Your task to perform on an android device: toggle improve location accuracy Image 0: 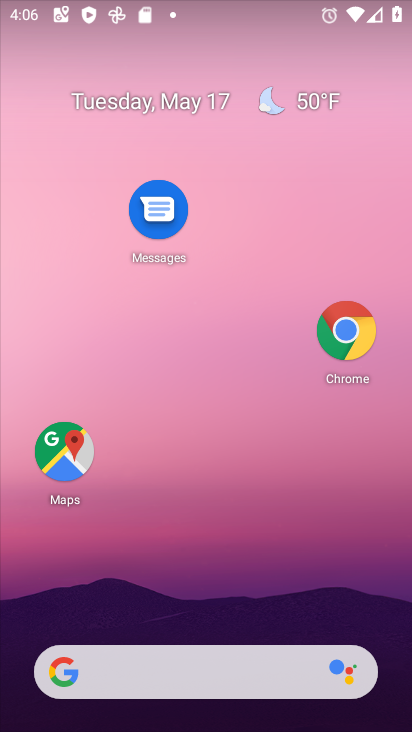
Step 0: drag from (347, 585) to (244, 119)
Your task to perform on an android device: toggle improve location accuracy Image 1: 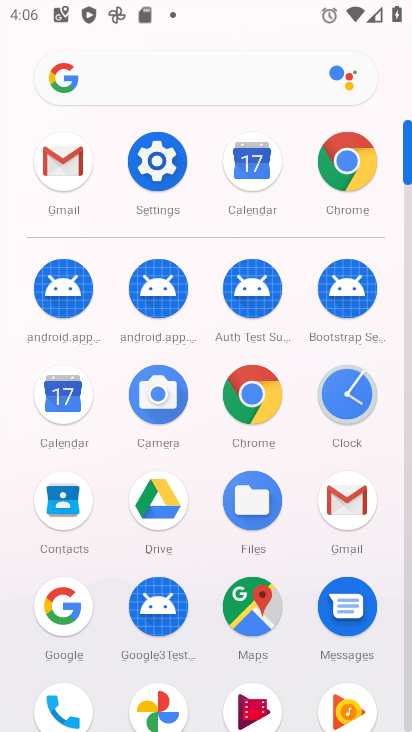
Step 1: click (179, 179)
Your task to perform on an android device: toggle improve location accuracy Image 2: 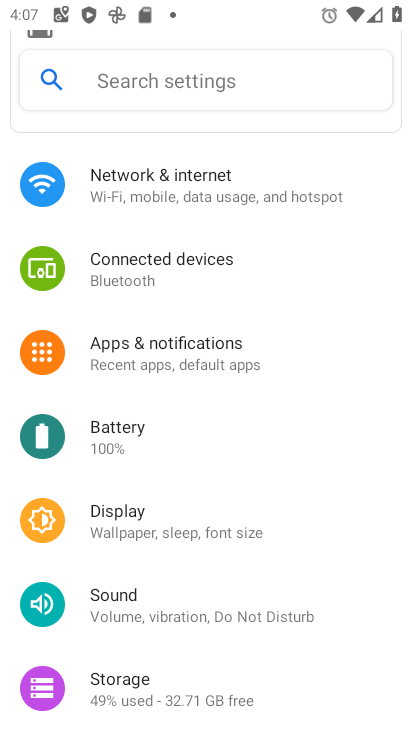
Step 2: drag from (194, 594) to (129, 318)
Your task to perform on an android device: toggle improve location accuracy Image 3: 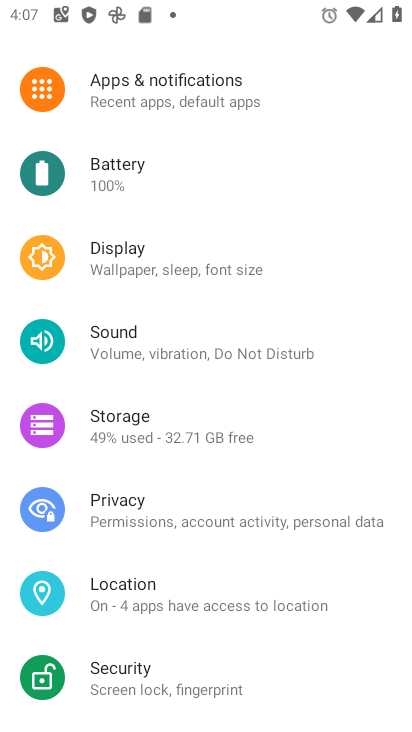
Step 3: click (149, 592)
Your task to perform on an android device: toggle improve location accuracy Image 4: 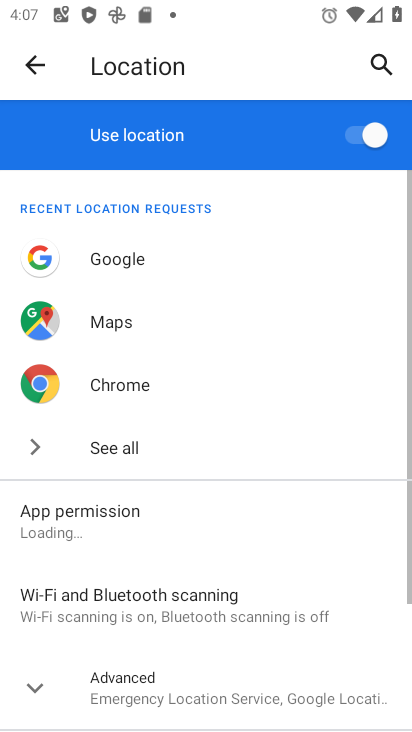
Step 4: drag from (149, 592) to (105, 243)
Your task to perform on an android device: toggle improve location accuracy Image 5: 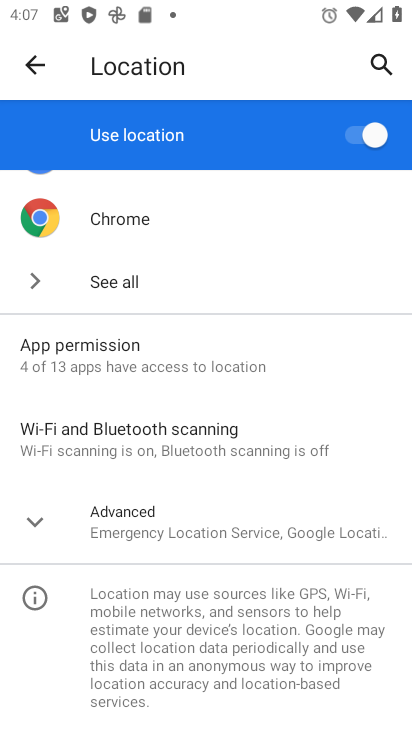
Step 5: click (107, 501)
Your task to perform on an android device: toggle improve location accuracy Image 6: 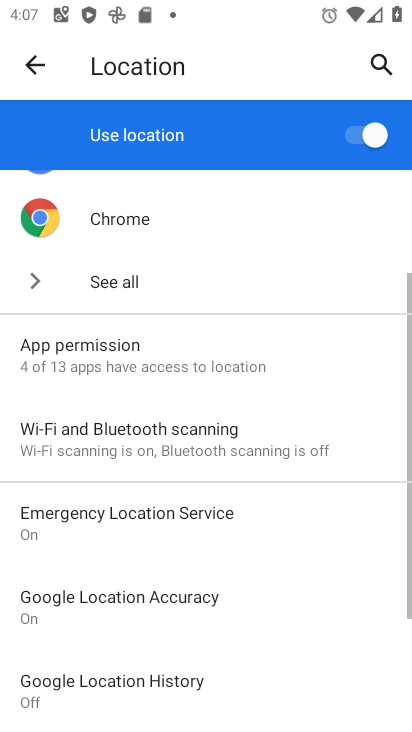
Step 6: drag from (107, 501) to (70, 264)
Your task to perform on an android device: toggle improve location accuracy Image 7: 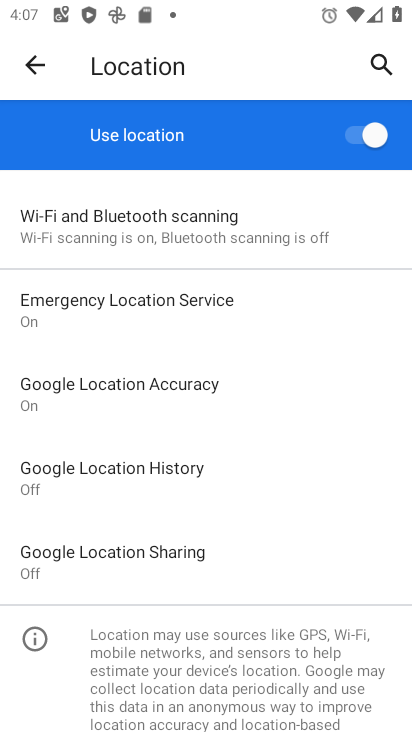
Step 7: click (96, 383)
Your task to perform on an android device: toggle improve location accuracy Image 8: 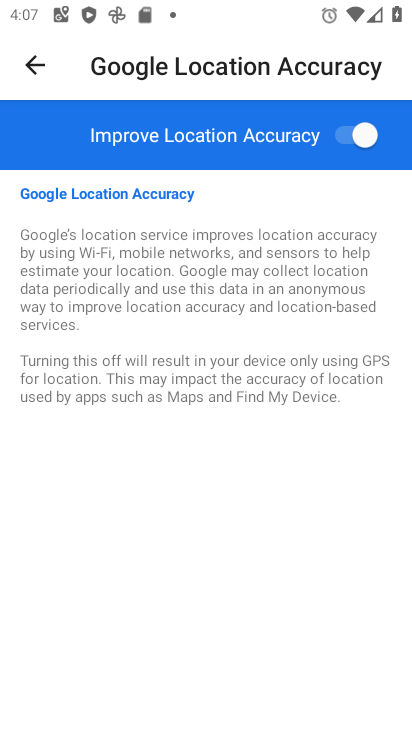
Step 8: click (343, 155)
Your task to perform on an android device: toggle improve location accuracy Image 9: 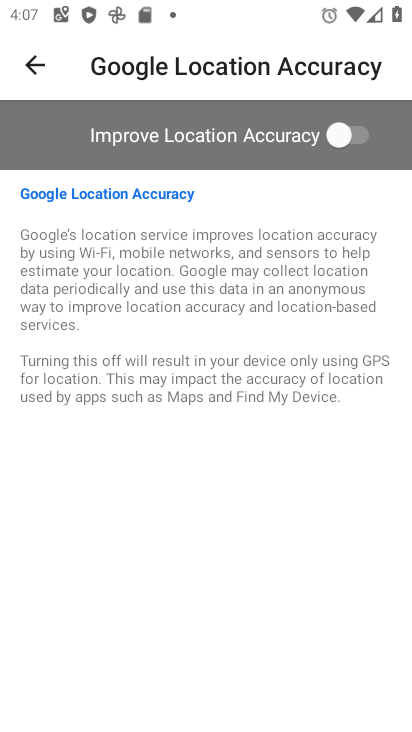
Step 9: task complete